Your task to perform on an android device: Open settings on Google Maps Image 0: 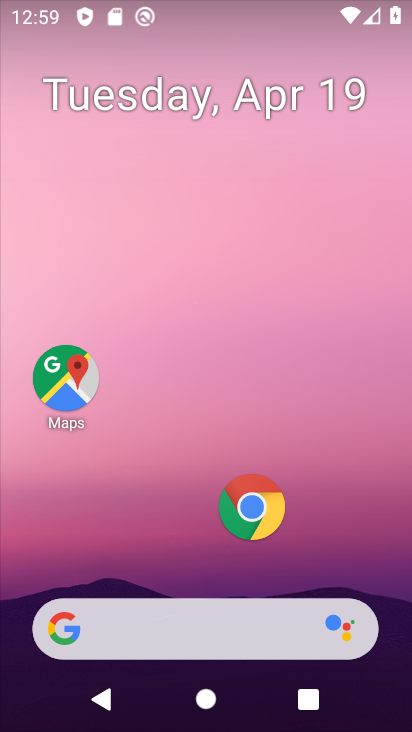
Step 0: click (61, 389)
Your task to perform on an android device: Open settings on Google Maps Image 1: 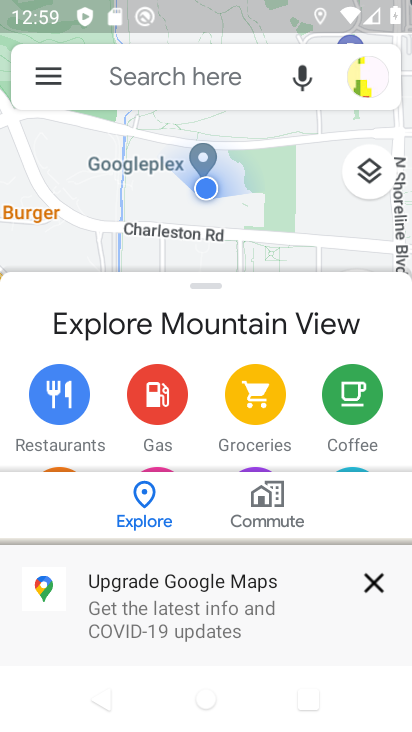
Step 1: click (38, 76)
Your task to perform on an android device: Open settings on Google Maps Image 2: 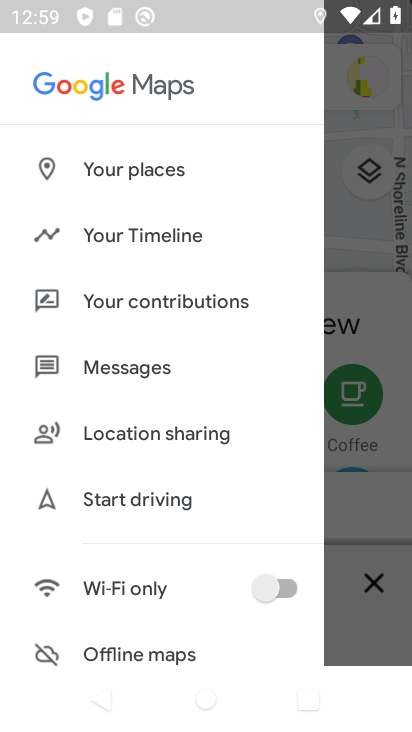
Step 2: drag from (124, 529) to (167, 244)
Your task to perform on an android device: Open settings on Google Maps Image 3: 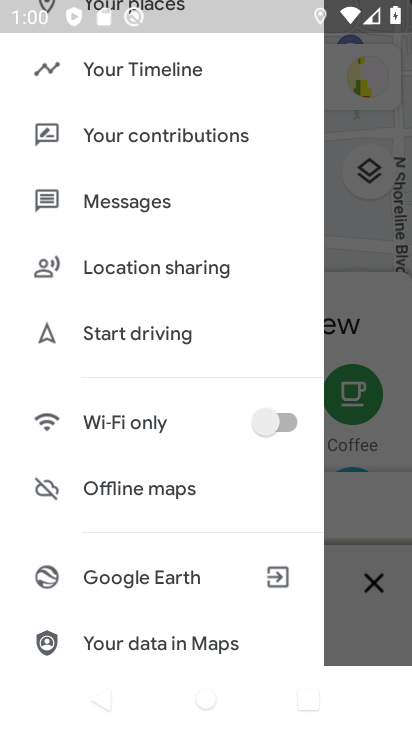
Step 3: drag from (139, 521) to (175, 207)
Your task to perform on an android device: Open settings on Google Maps Image 4: 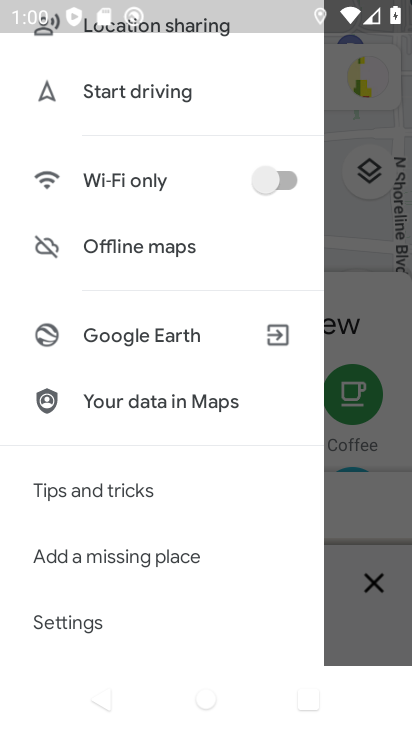
Step 4: click (77, 628)
Your task to perform on an android device: Open settings on Google Maps Image 5: 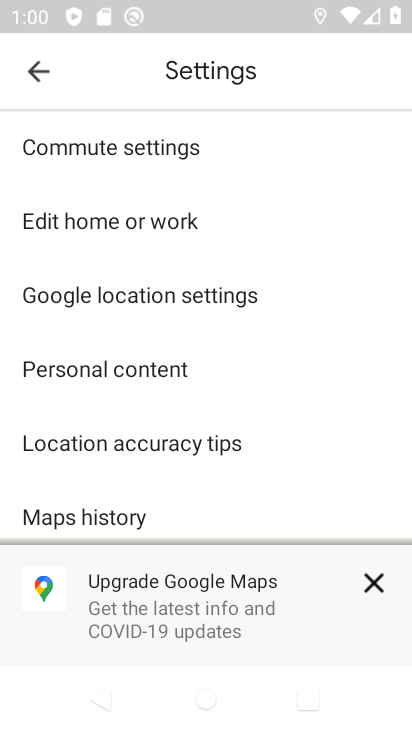
Step 5: task complete